Your task to perform on an android device: What is the news today? Image 0: 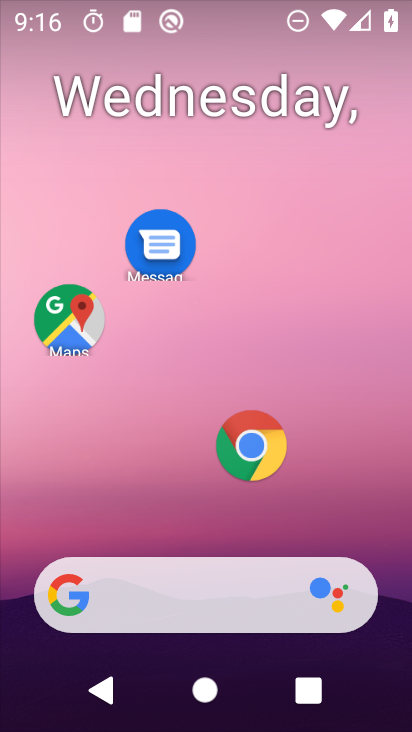
Step 0: press home button
Your task to perform on an android device: What is the news today? Image 1: 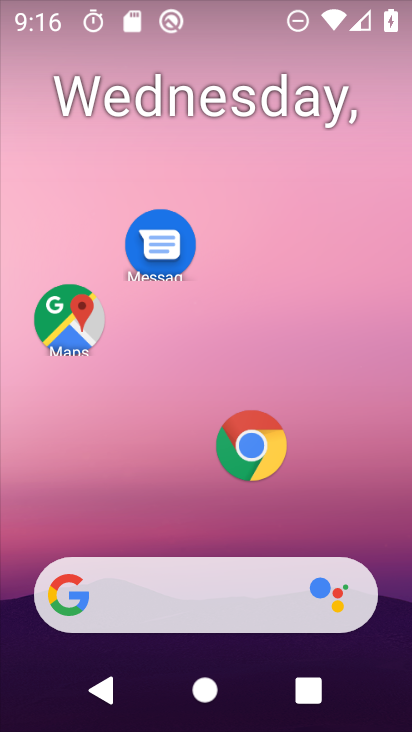
Step 1: task complete